Your task to perform on an android device: open sync settings in chrome Image 0: 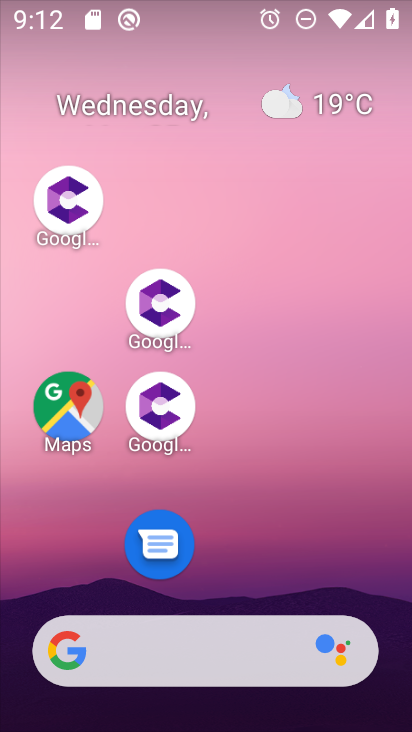
Step 0: drag from (263, 535) to (214, 101)
Your task to perform on an android device: open sync settings in chrome Image 1: 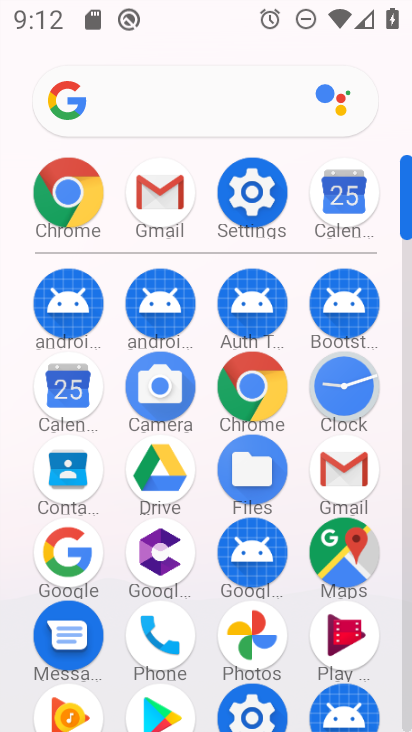
Step 1: click (66, 192)
Your task to perform on an android device: open sync settings in chrome Image 2: 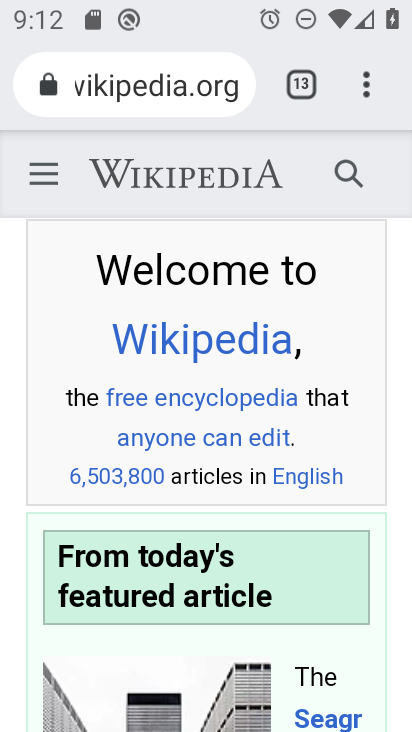
Step 2: click (367, 87)
Your task to perform on an android device: open sync settings in chrome Image 3: 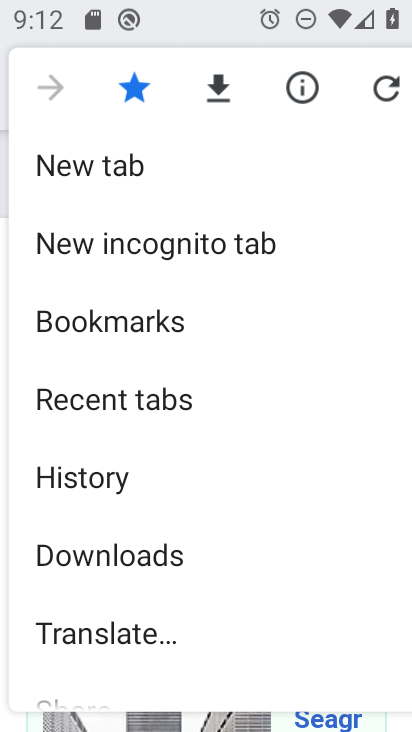
Step 3: drag from (233, 577) to (180, 208)
Your task to perform on an android device: open sync settings in chrome Image 4: 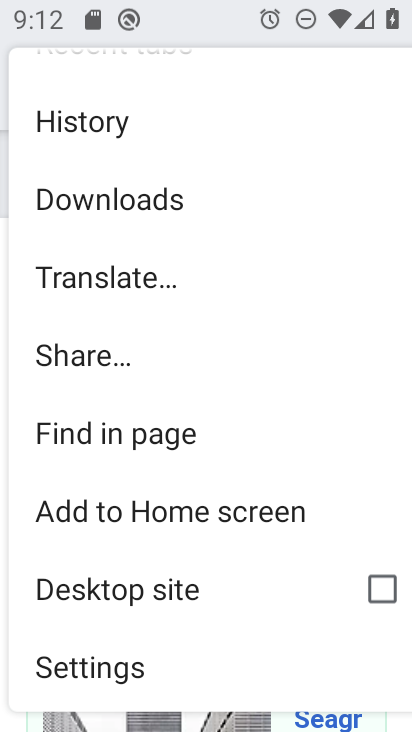
Step 4: click (117, 654)
Your task to perform on an android device: open sync settings in chrome Image 5: 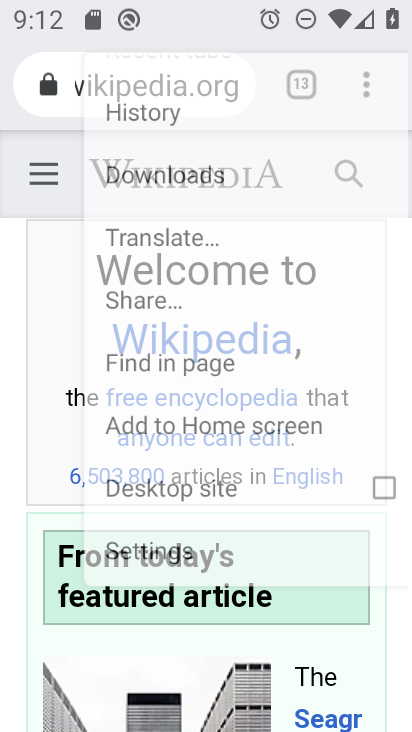
Step 5: click (117, 654)
Your task to perform on an android device: open sync settings in chrome Image 6: 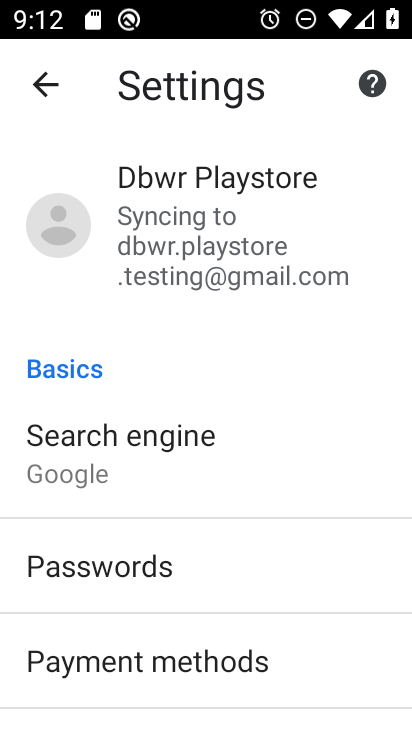
Step 6: click (184, 229)
Your task to perform on an android device: open sync settings in chrome Image 7: 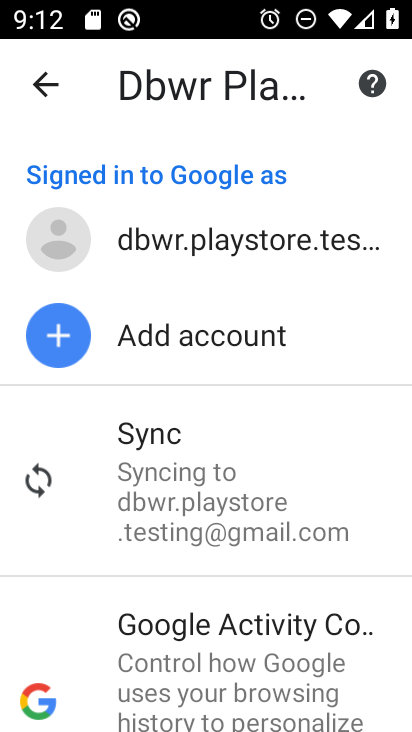
Step 7: click (158, 434)
Your task to perform on an android device: open sync settings in chrome Image 8: 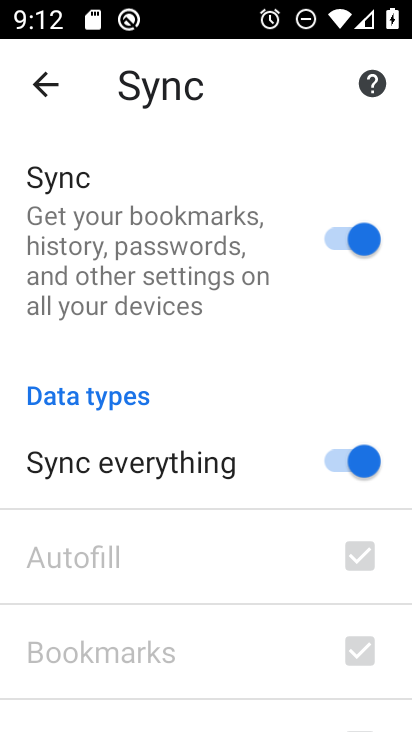
Step 8: task complete